Your task to perform on an android device: Open Chrome and go to settings Image 0: 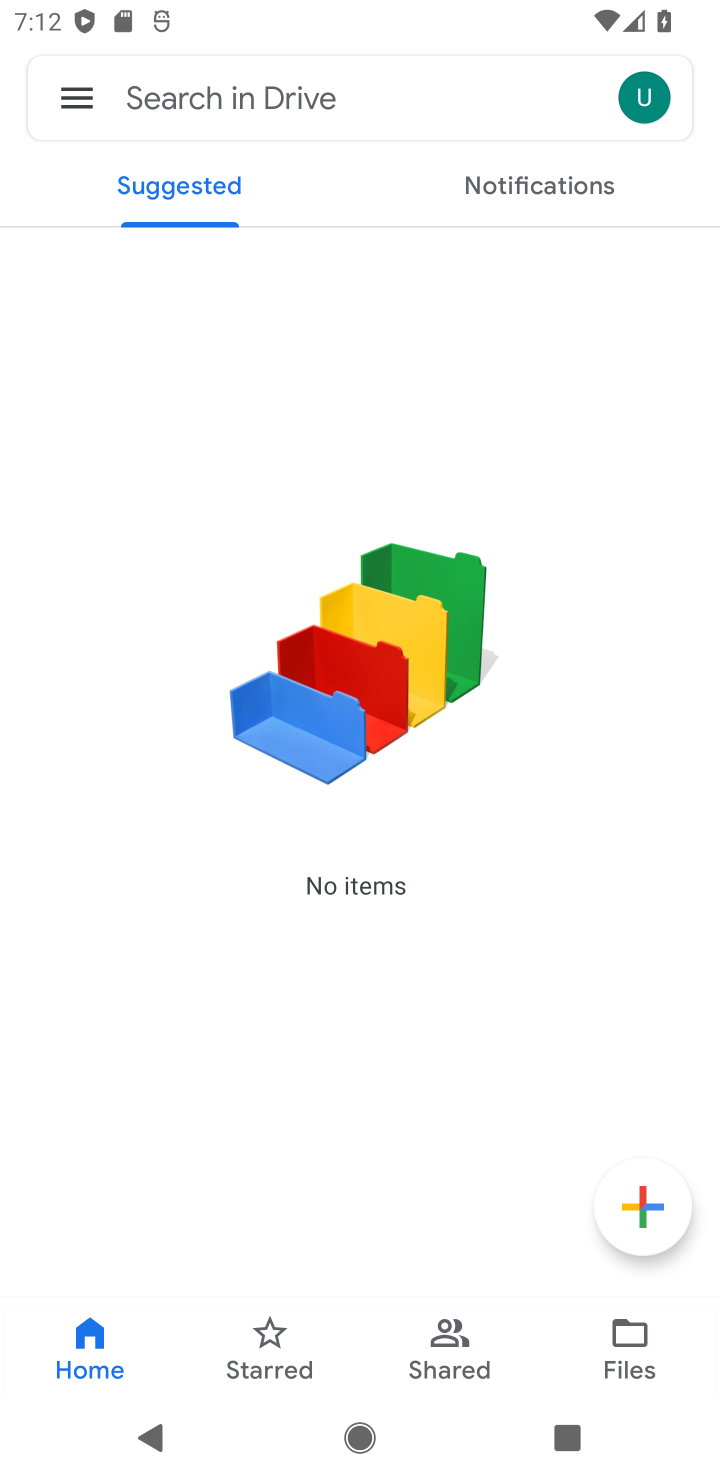
Step 0: press back button
Your task to perform on an android device: Open Chrome and go to settings Image 1: 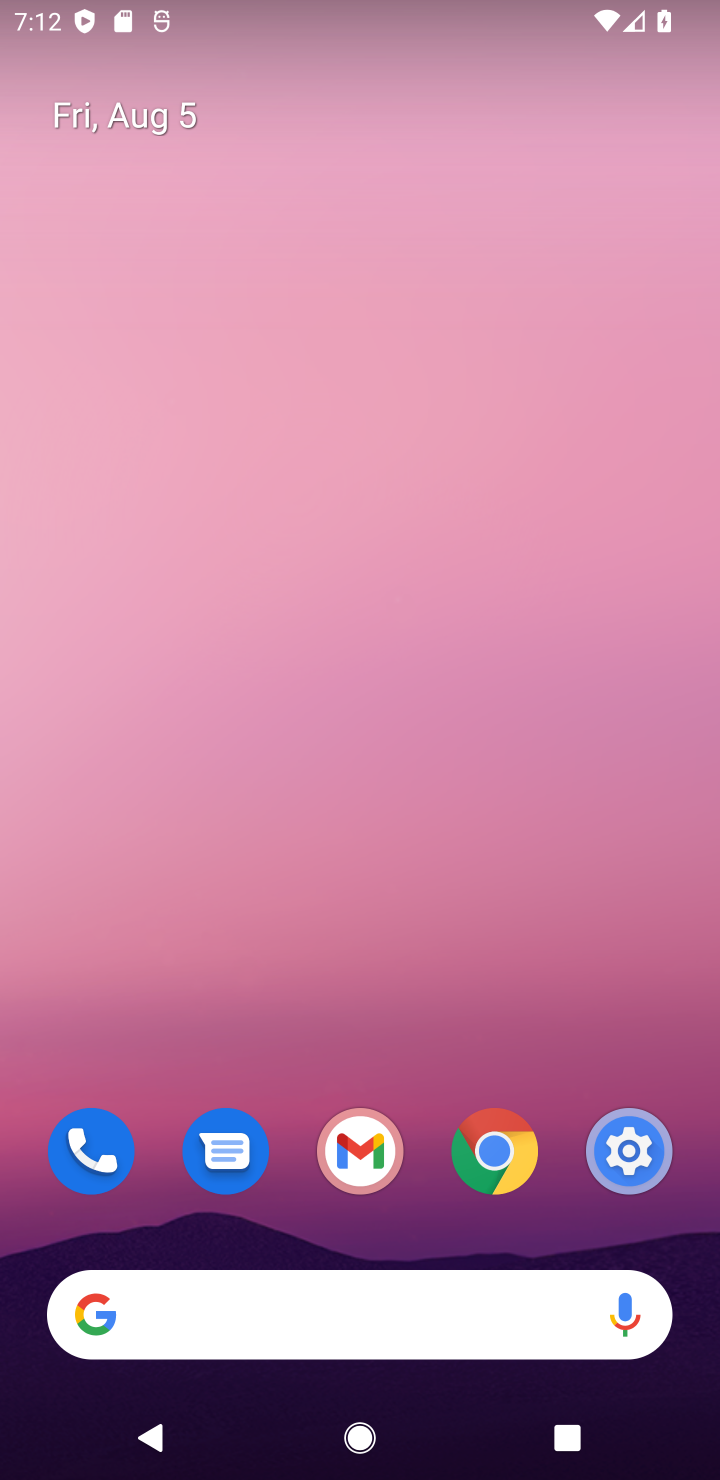
Step 1: click (487, 1152)
Your task to perform on an android device: Open Chrome and go to settings Image 2: 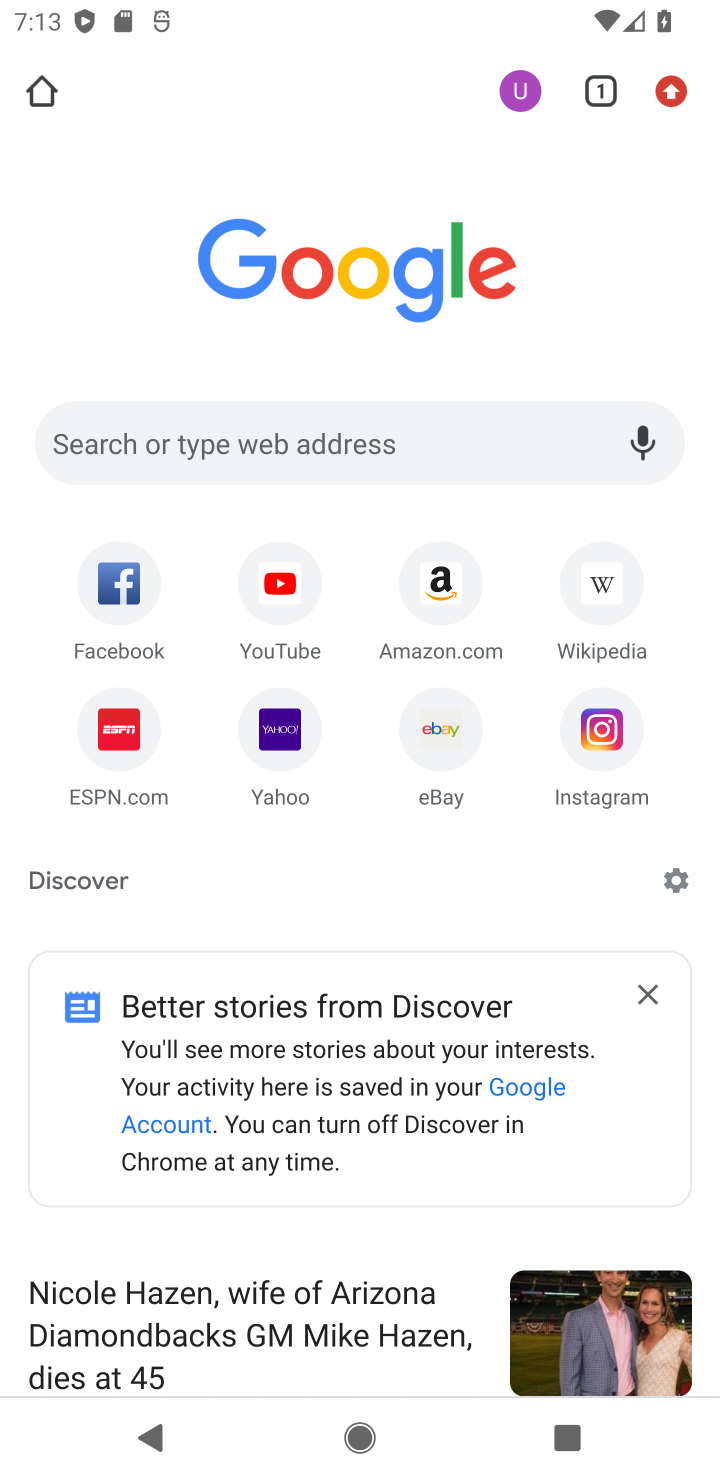
Step 2: task complete